Your task to perform on an android device: When is my next meeting? Image 0: 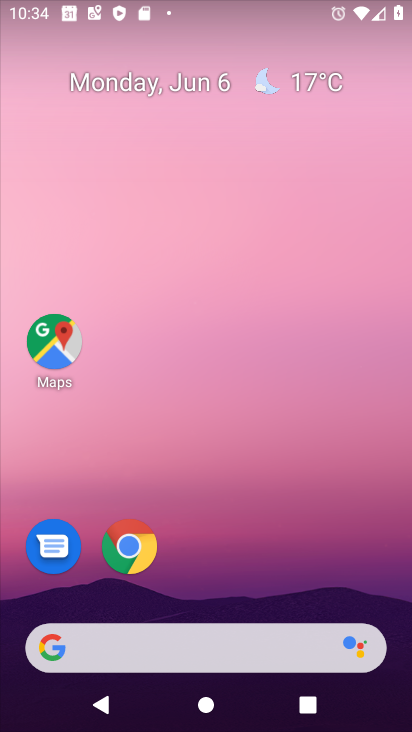
Step 0: drag from (175, 588) to (246, 146)
Your task to perform on an android device: When is my next meeting? Image 1: 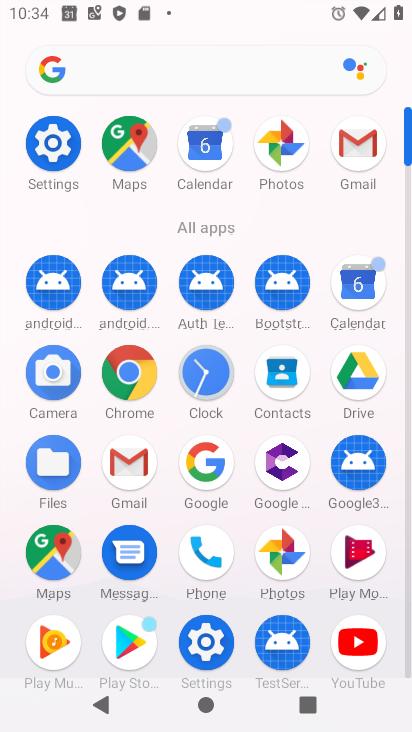
Step 1: click (349, 315)
Your task to perform on an android device: When is my next meeting? Image 2: 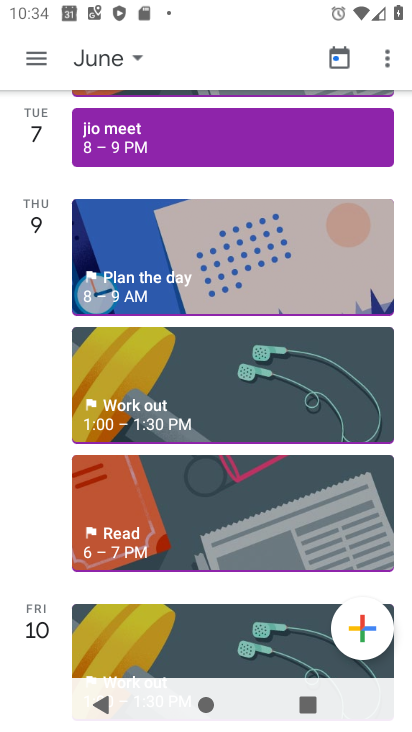
Step 2: drag from (145, 158) to (139, 724)
Your task to perform on an android device: When is my next meeting? Image 3: 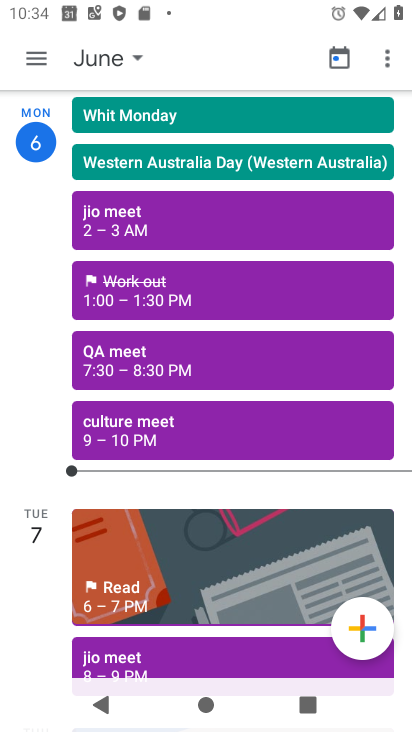
Step 3: drag from (131, 589) to (163, 398)
Your task to perform on an android device: When is my next meeting? Image 4: 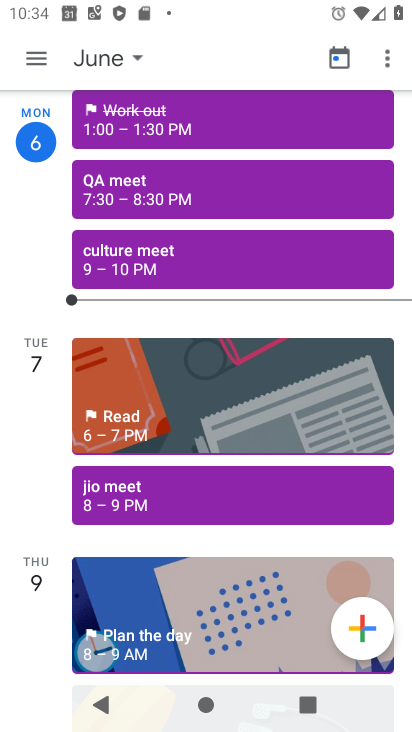
Step 4: click (135, 509)
Your task to perform on an android device: When is my next meeting? Image 5: 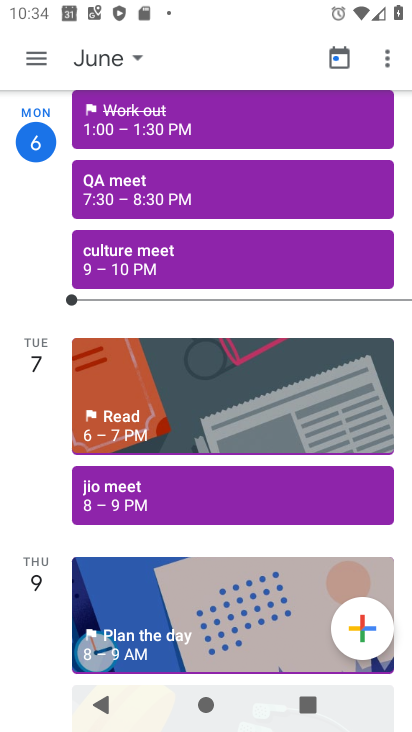
Step 5: click (136, 497)
Your task to perform on an android device: When is my next meeting? Image 6: 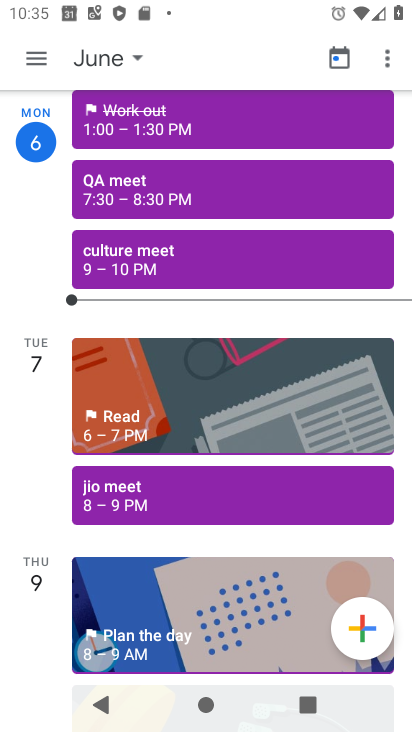
Step 6: click (111, 492)
Your task to perform on an android device: When is my next meeting? Image 7: 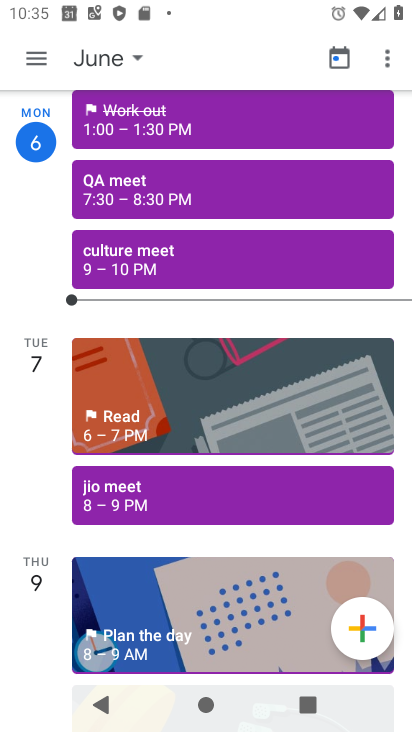
Step 7: click (109, 493)
Your task to perform on an android device: When is my next meeting? Image 8: 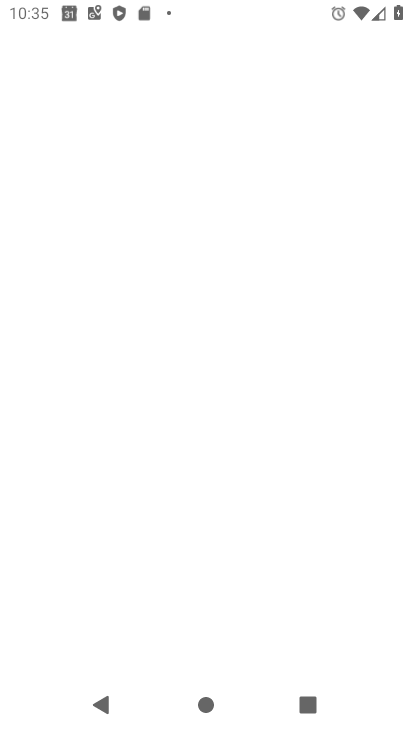
Step 8: task complete